Your task to perform on an android device: Do I have any events today? Image 0: 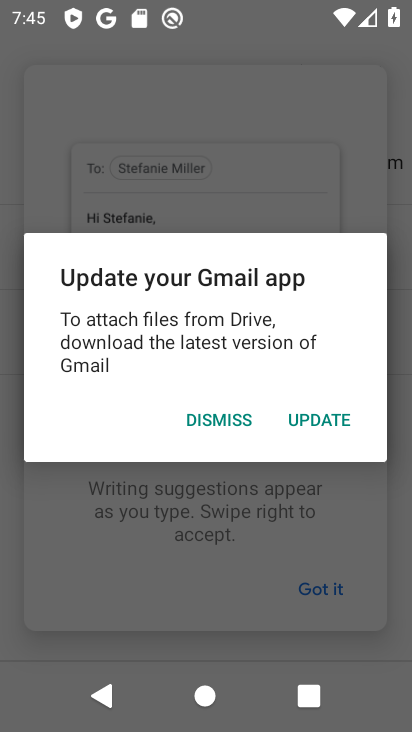
Step 0: press home button
Your task to perform on an android device: Do I have any events today? Image 1: 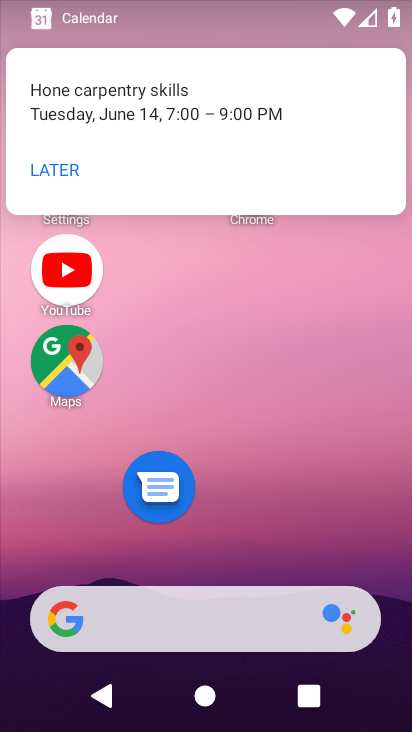
Step 1: click (21, 168)
Your task to perform on an android device: Do I have any events today? Image 2: 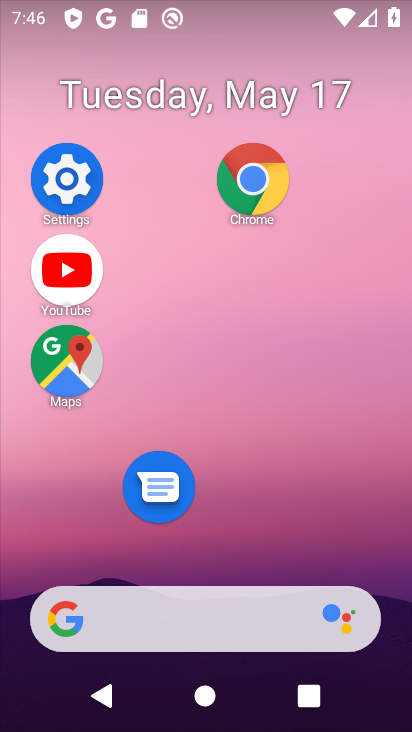
Step 2: drag from (260, 561) to (286, 65)
Your task to perform on an android device: Do I have any events today? Image 3: 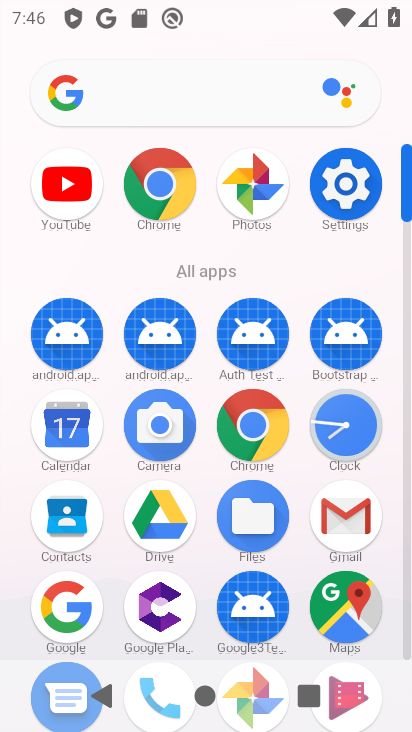
Step 3: drag from (68, 439) to (125, 275)
Your task to perform on an android device: Do I have any events today? Image 4: 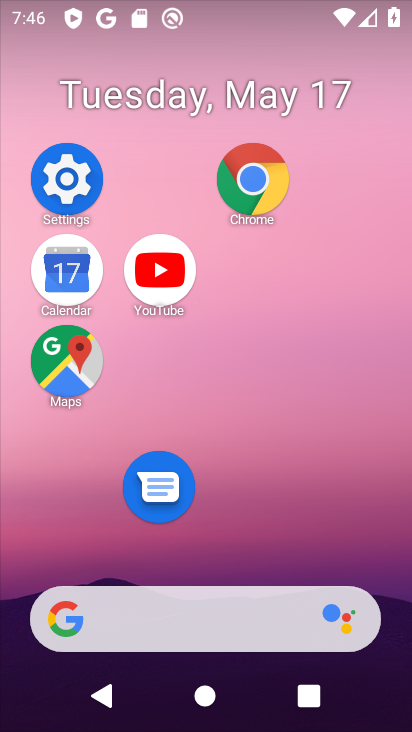
Step 4: drag from (65, 271) to (135, 184)
Your task to perform on an android device: Do I have any events today? Image 5: 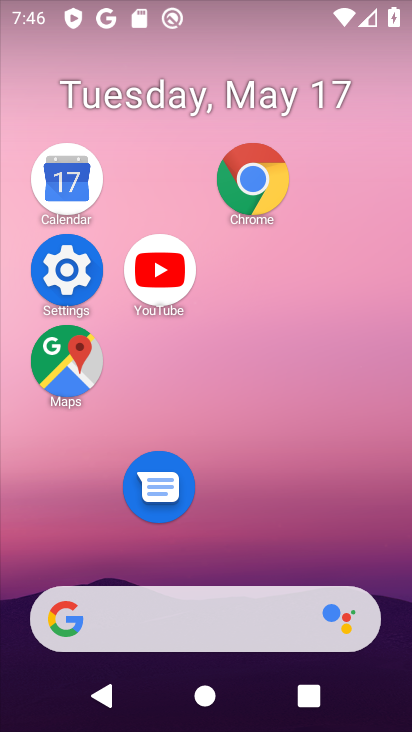
Step 5: drag from (72, 178) to (169, 176)
Your task to perform on an android device: Do I have any events today? Image 6: 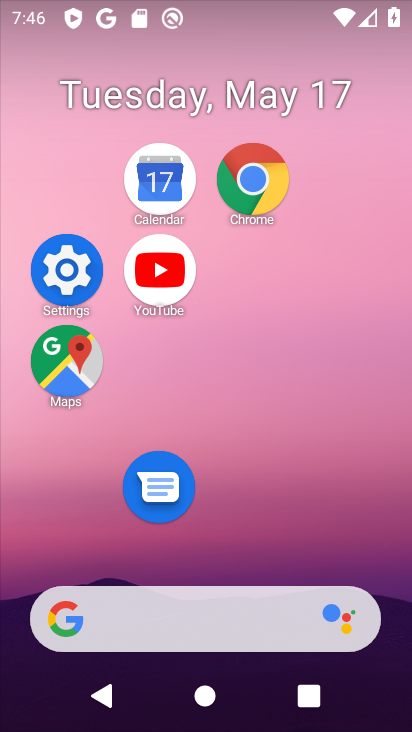
Step 6: drag from (74, 261) to (82, 175)
Your task to perform on an android device: Do I have any events today? Image 7: 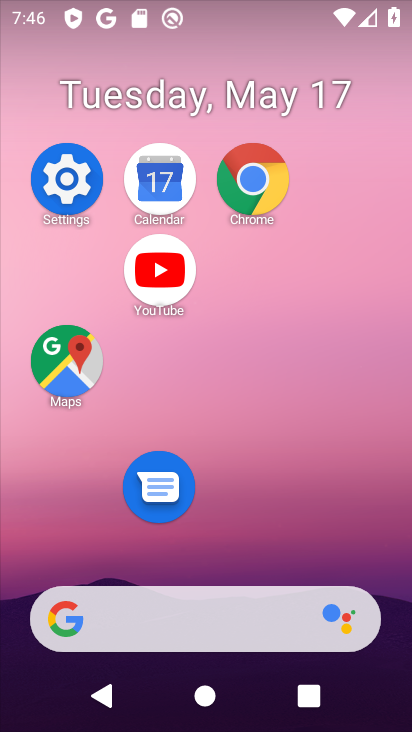
Step 7: click (172, 168)
Your task to perform on an android device: Do I have any events today? Image 8: 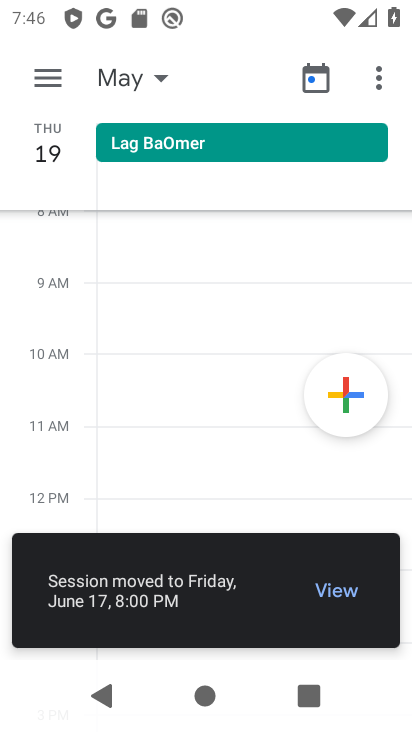
Step 8: drag from (50, 143) to (400, 144)
Your task to perform on an android device: Do I have any events today? Image 9: 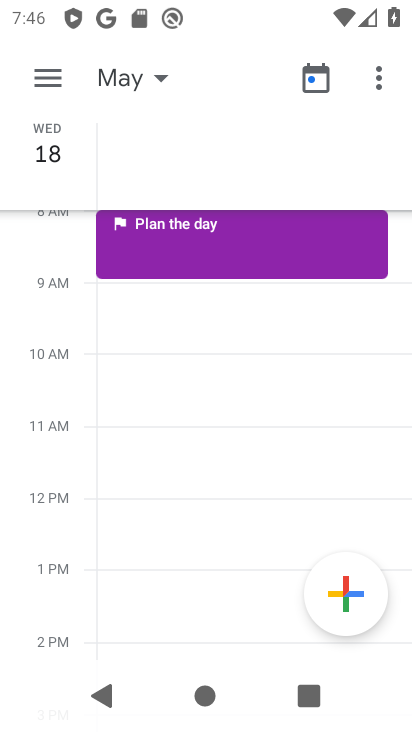
Step 9: click (39, 162)
Your task to perform on an android device: Do I have any events today? Image 10: 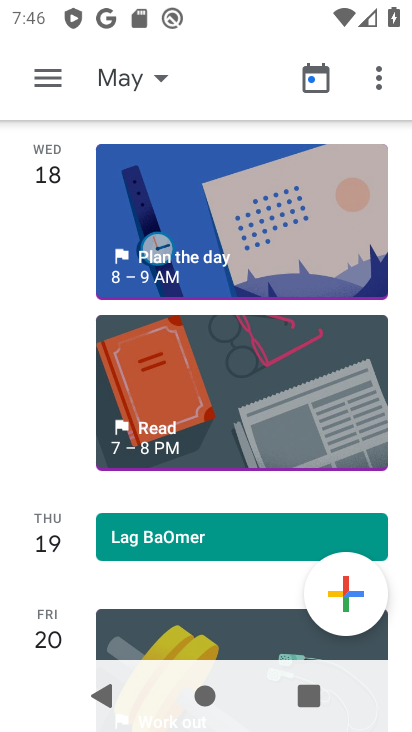
Step 10: task complete